Your task to perform on an android device: What's the weather going to be tomorrow? Image 0: 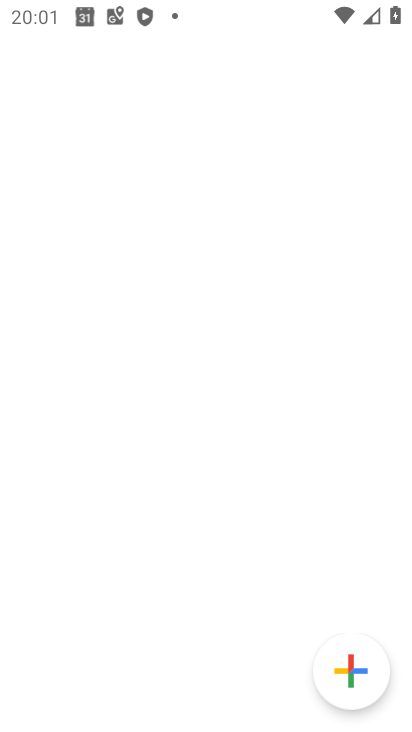
Step 0: drag from (339, 581) to (344, 204)
Your task to perform on an android device: What's the weather going to be tomorrow? Image 1: 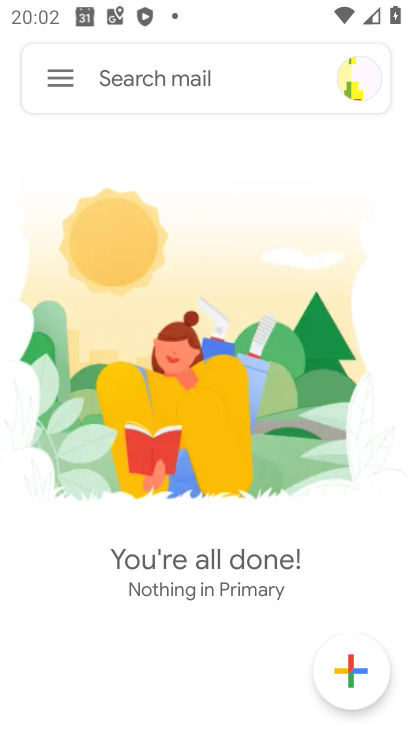
Step 1: press home button
Your task to perform on an android device: What's the weather going to be tomorrow? Image 2: 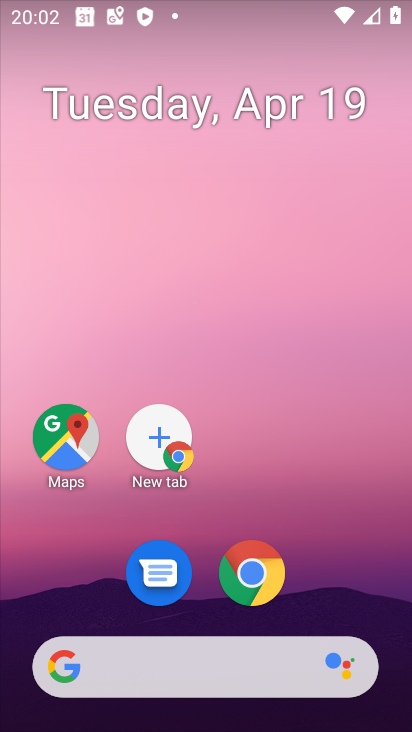
Step 2: drag from (3, 279) to (398, 275)
Your task to perform on an android device: What's the weather going to be tomorrow? Image 3: 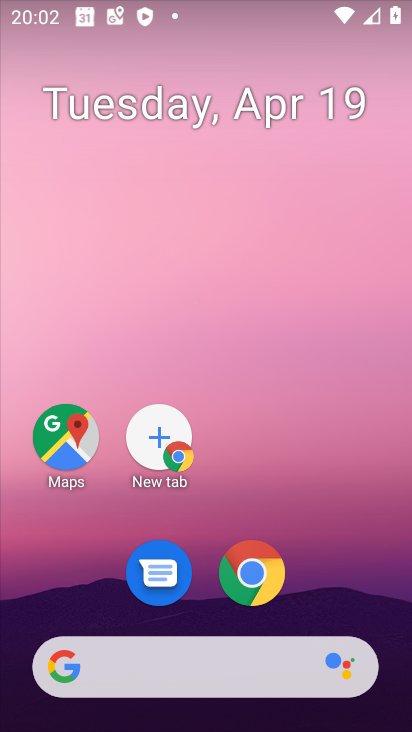
Step 3: drag from (5, 257) to (403, 265)
Your task to perform on an android device: What's the weather going to be tomorrow? Image 4: 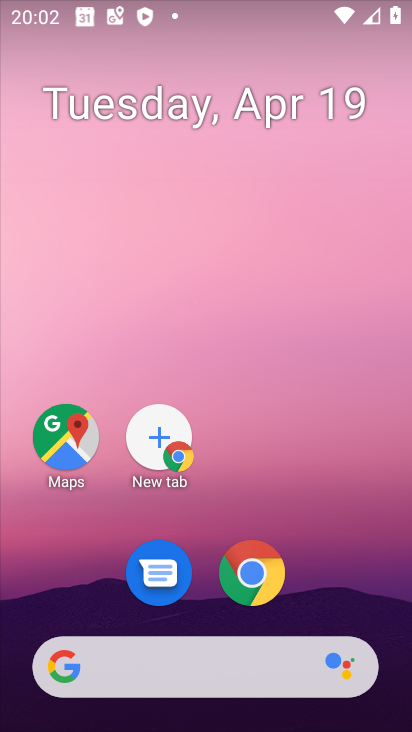
Step 4: drag from (59, 254) to (409, 259)
Your task to perform on an android device: What's the weather going to be tomorrow? Image 5: 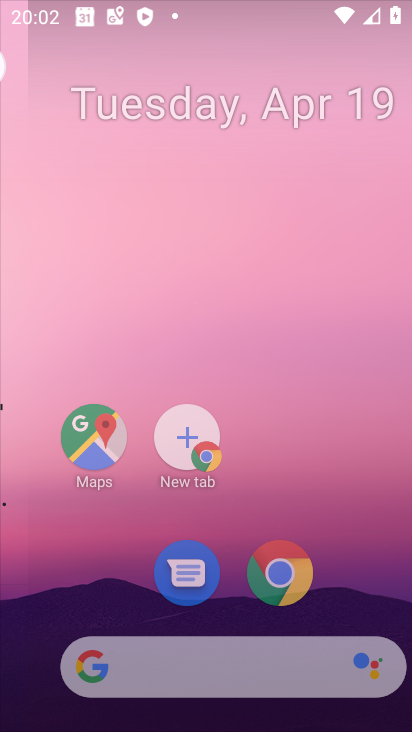
Step 5: drag from (80, 223) to (401, 249)
Your task to perform on an android device: What's the weather going to be tomorrow? Image 6: 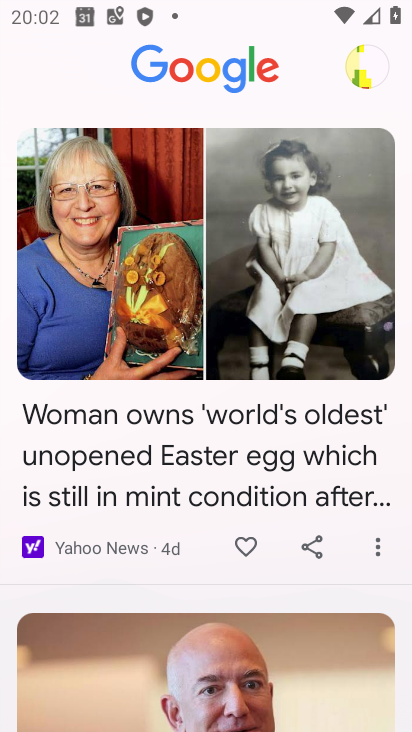
Step 6: drag from (232, 433) to (234, 495)
Your task to perform on an android device: What's the weather going to be tomorrow? Image 7: 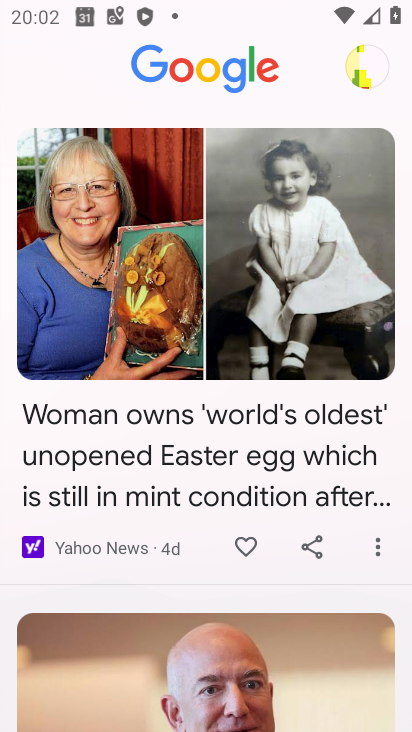
Step 7: drag from (285, 78) to (286, 306)
Your task to perform on an android device: What's the weather going to be tomorrow? Image 8: 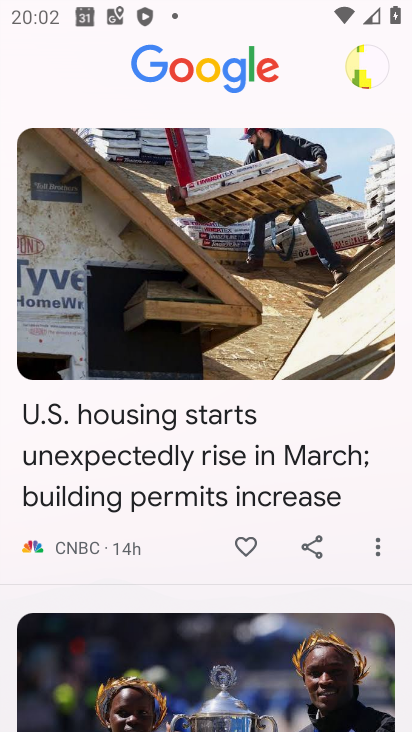
Step 8: click (270, 496)
Your task to perform on an android device: What's the weather going to be tomorrow? Image 9: 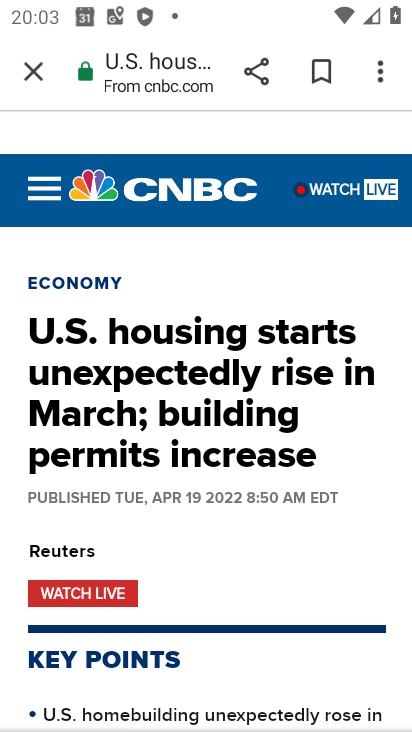
Step 9: task complete